Your task to perform on an android device: Clear all items from cart on target. Add "razer deathadder" to the cart on target, then select checkout. Image 0: 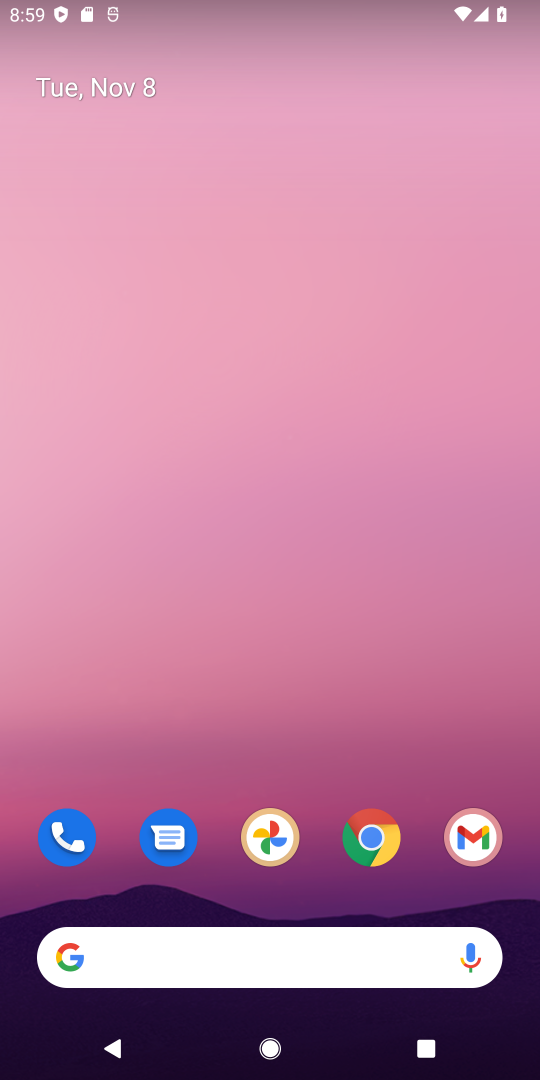
Step 0: click (371, 829)
Your task to perform on an android device: Clear all items from cart on target. Add "razer deathadder" to the cart on target, then select checkout. Image 1: 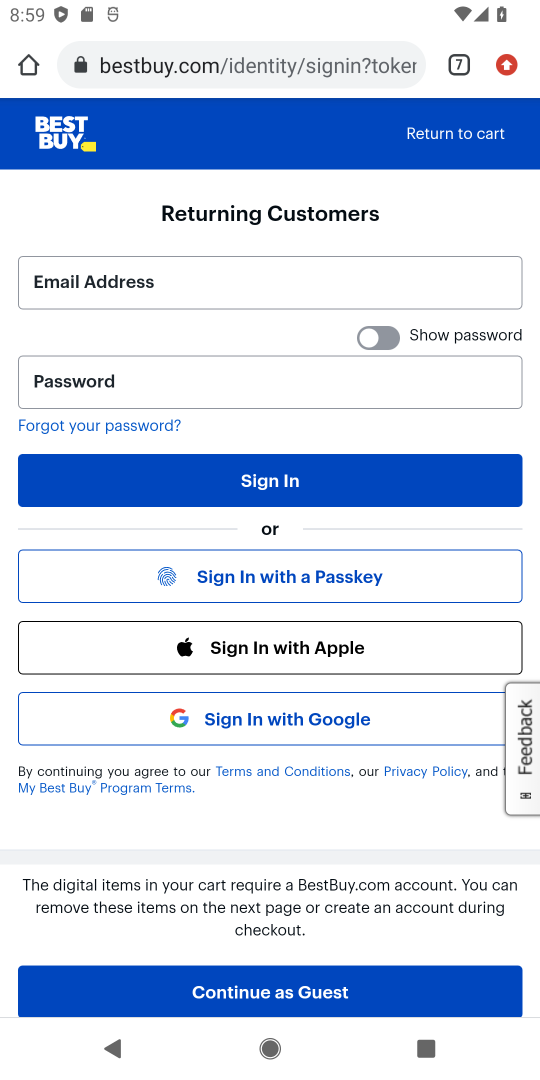
Step 1: click (455, 66)
Your task to perform on an android device: Clear all items from cart on target. Add "razer deathadder" to the cart on target, then select checkout. Image 2: 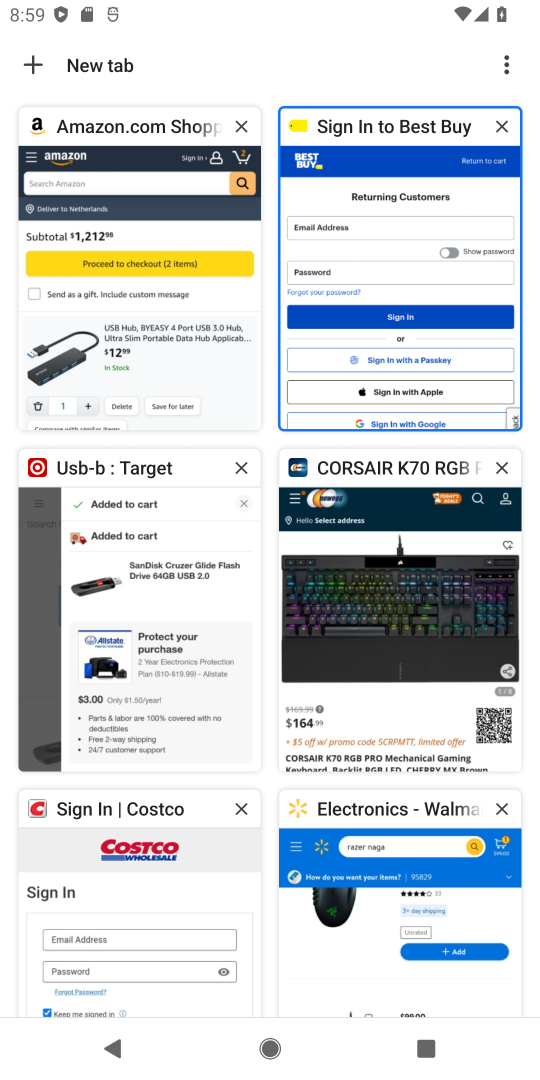
Step 2: click (186, 559)
Your task to perform on an android device: Clear all items from cart on target. Add "razer deathadder" to the cart on target, then select checkout. Image 3: 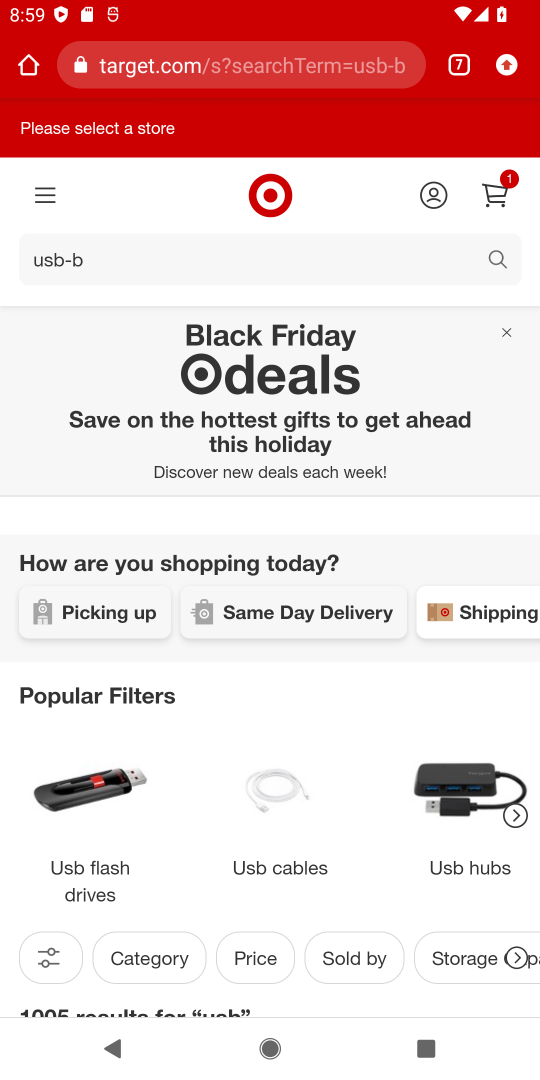
Step 3: click (164, 265)
Your task to perform on an android device: Clear all items from cart on target. Add "razer deathadder" to the cart on target, then select checkout. Image 4: 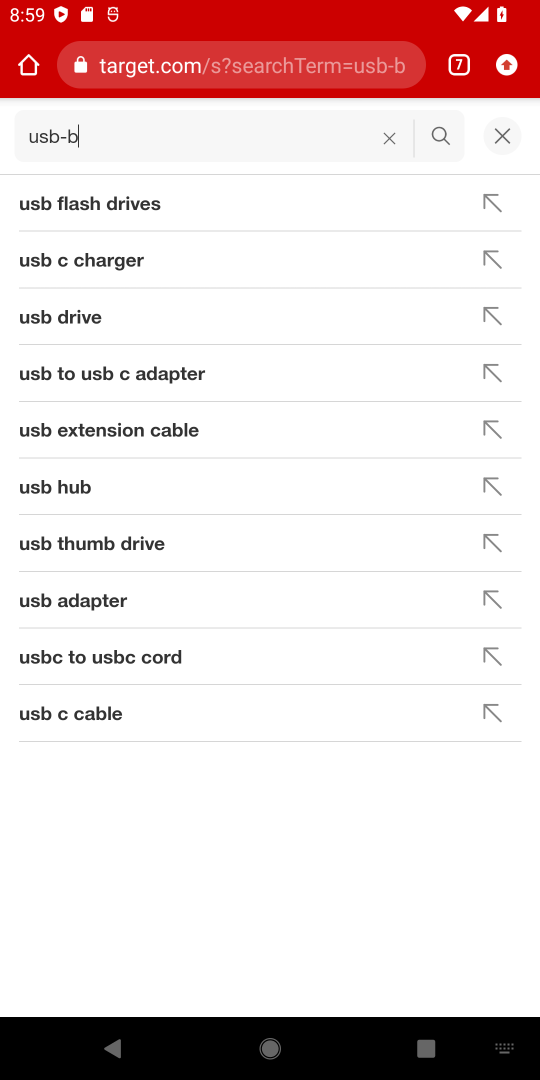
Step 4: click (397, 133)
Your task to perform on an android device: Clear all items from cart on target. Add "razer deathadder" to the cart on target, then select checkout. Image 5: 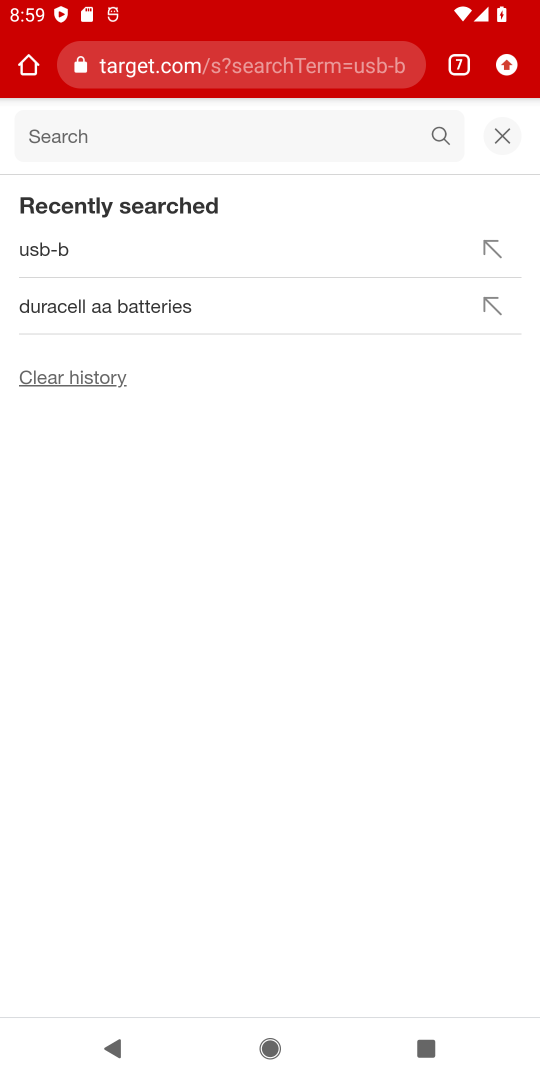
Step 5: type "razer deathadder"
Your task to perform on an android device: Clear all items from cart on target. Add "razer deathadder" to the cart on target, then select checkout. Image 6: 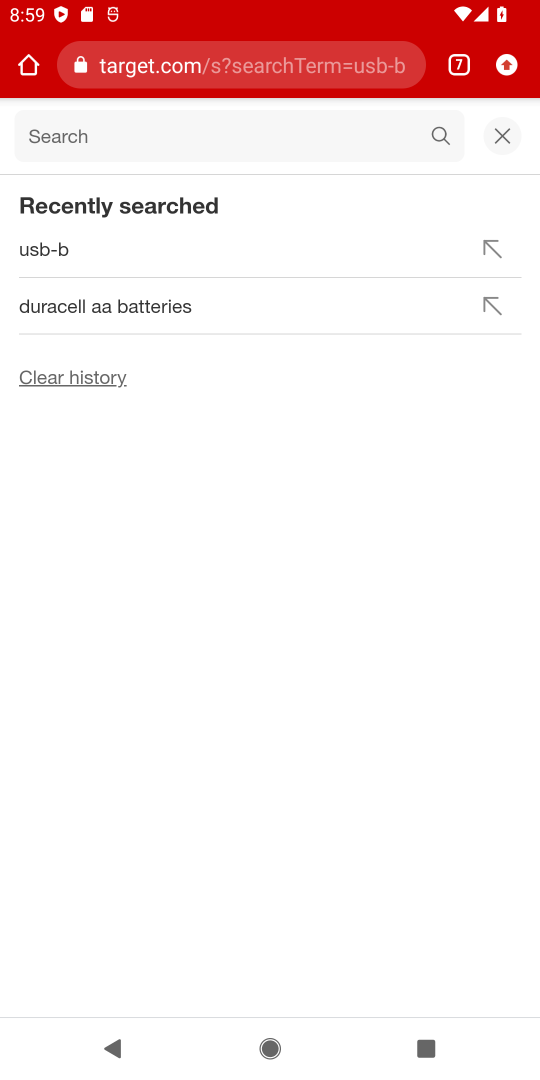
Step 6: click (395, 137)
Your task to perform on an android device: Clear all items from cart on target. Add "razer deathadder" to the cart on target, then select checkout. Image 7: 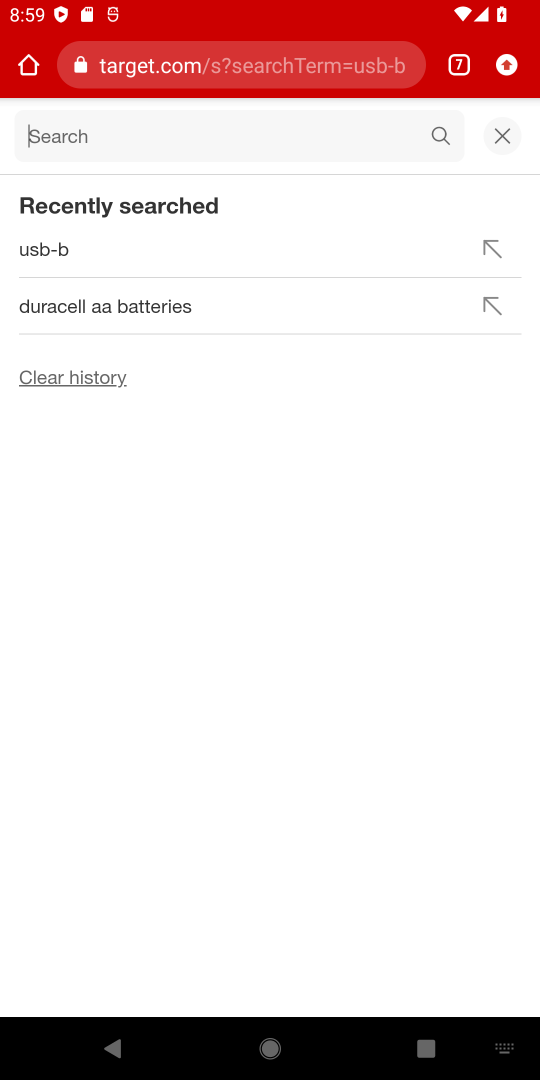
Step 7: type "razer deathadder"
Your task to perform on an android device: Clear all items from cart on target. Add "razer deathadder" to the cart on target, then select checkout. Image 8: 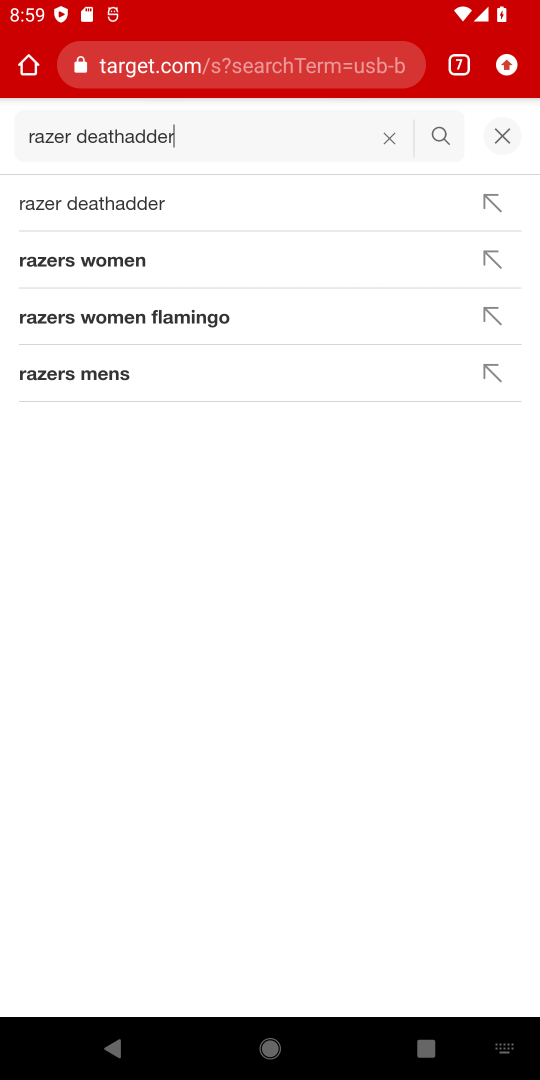
Step 8: click (435, 134)
Your task to perform on an android device: Clear all items from cart on target. Add "razer deathadder" to the cart on target, then select checkout. Image 9: 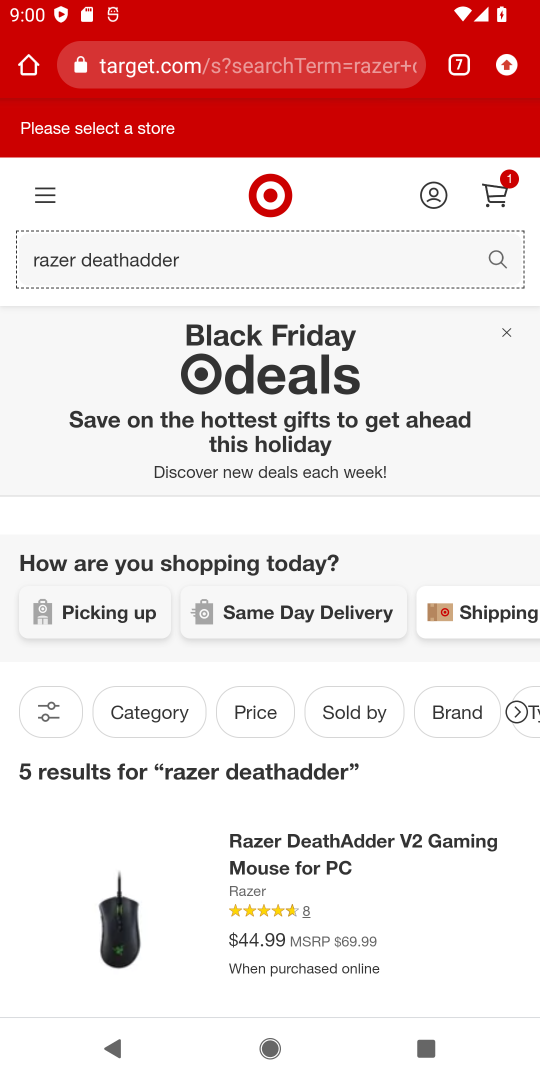
Step 9: drag from (376, 901) to (525, 277)
Your task to perform on an android device: Clear all items from cart on target. Add "razer deathadder" to the cart on target, then select checkout. Image 10: 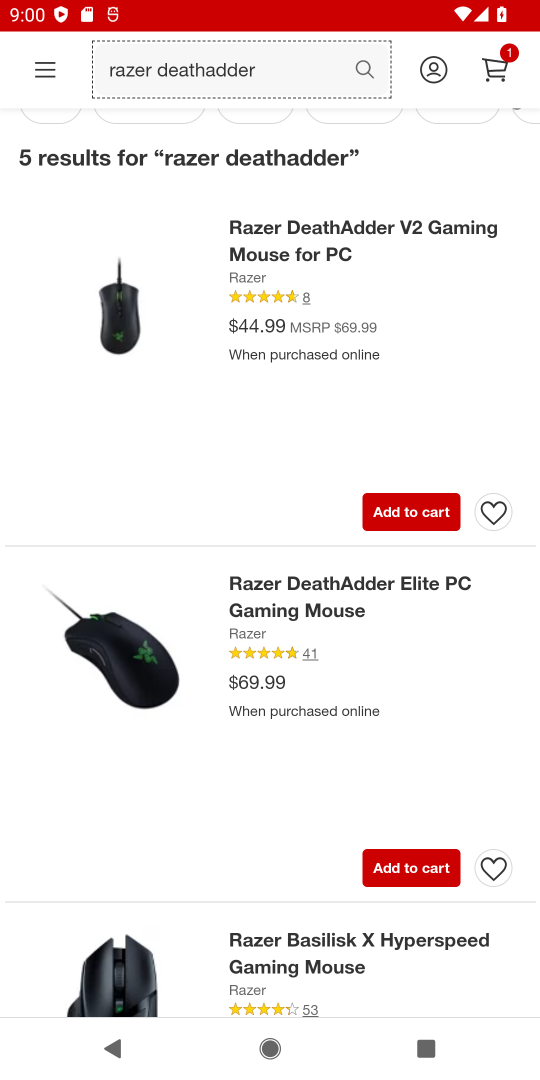
Step 10: click (414, 510)
Your task to perform on an android device: Clear all items from cart on target. Add "razer deathadder" to the cart on target, then select checkout. Image 11: 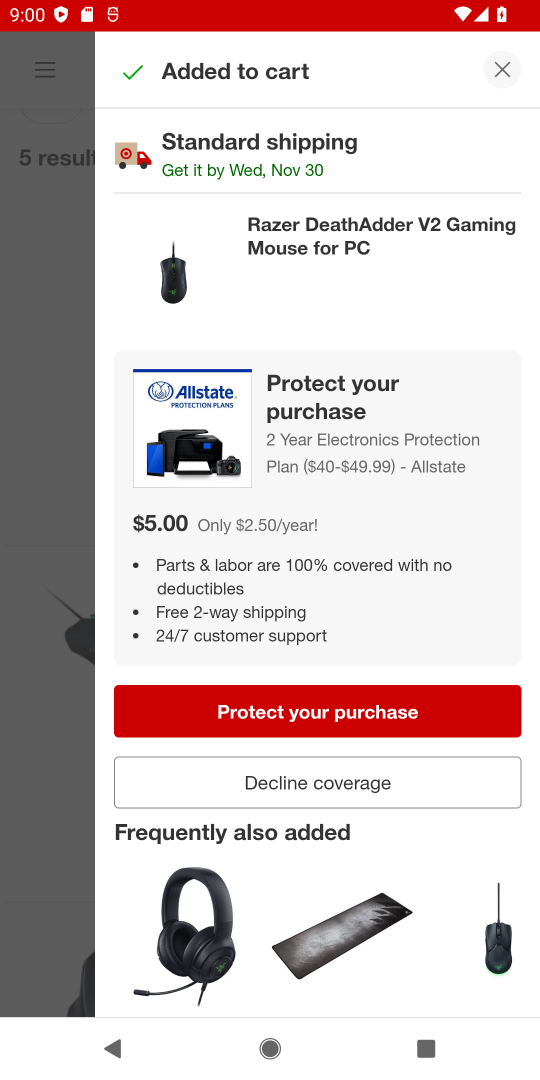
Step 11: task complete